Your task to perform on an android device: all mails in gmail Image 0: 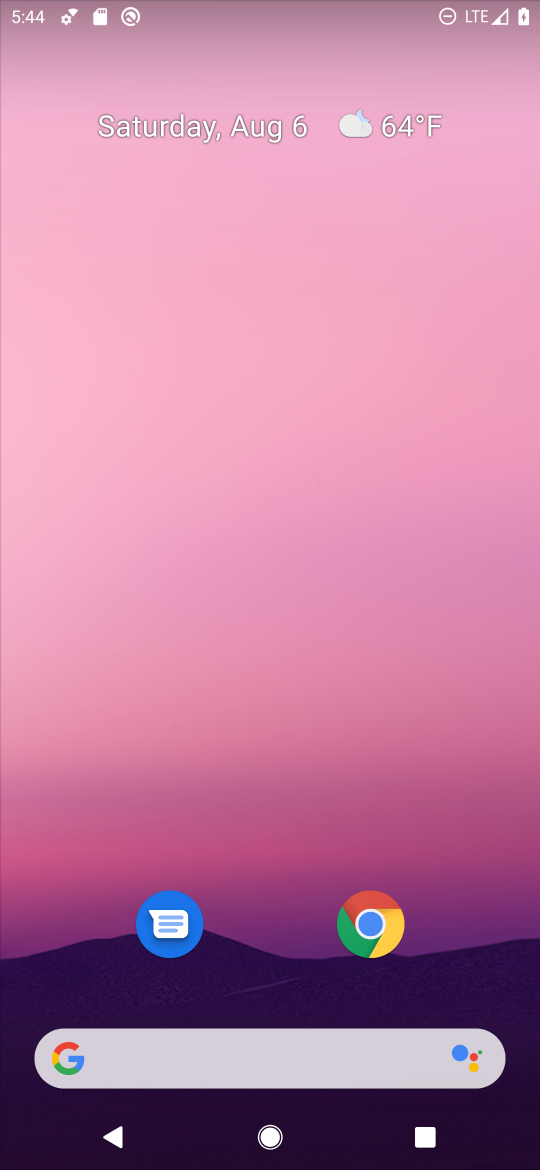
Step 0: drag from (242, 976) to (199, 121)
Your task to perform on an android device: all mails in gmail Image 1: 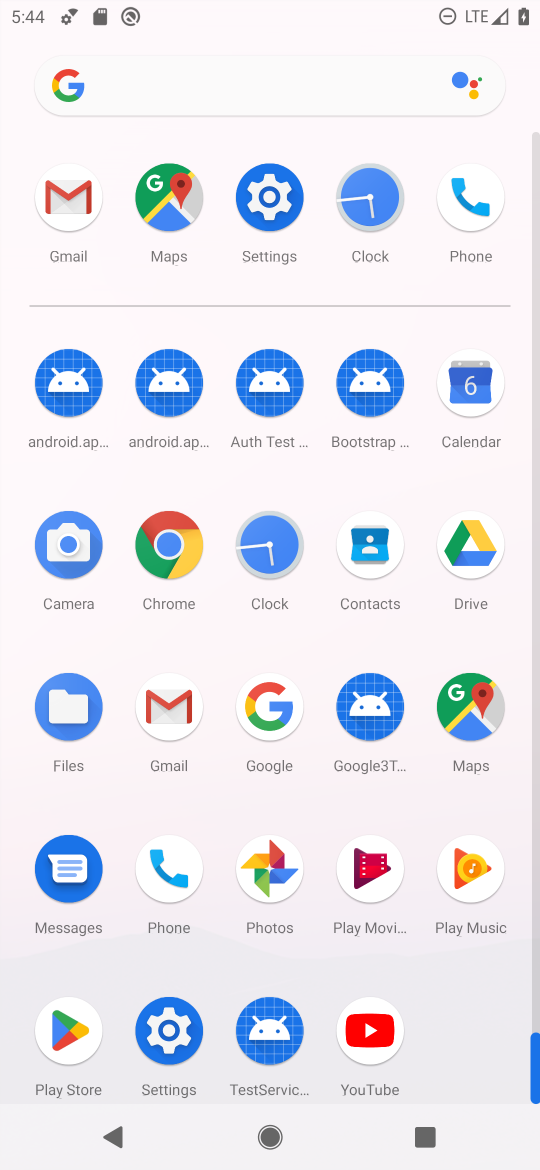
Step 1: click (70, 186)
Your task to perform on an android device: all mails in gmail Image 2: 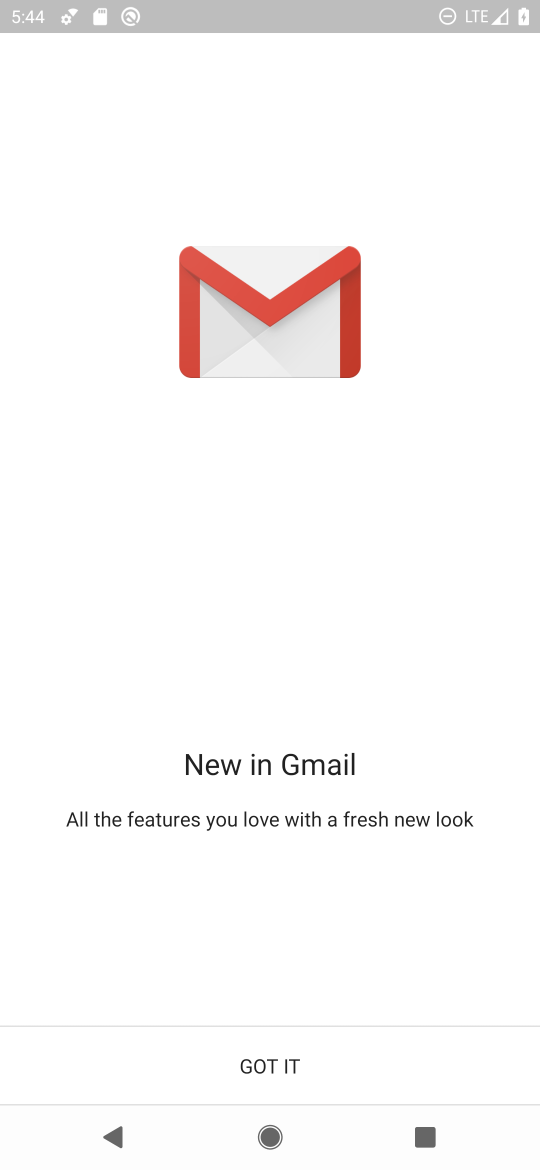
Step 2: click (287, 1068)
Your task to perform on an android device: all mails in gmail Image 3: 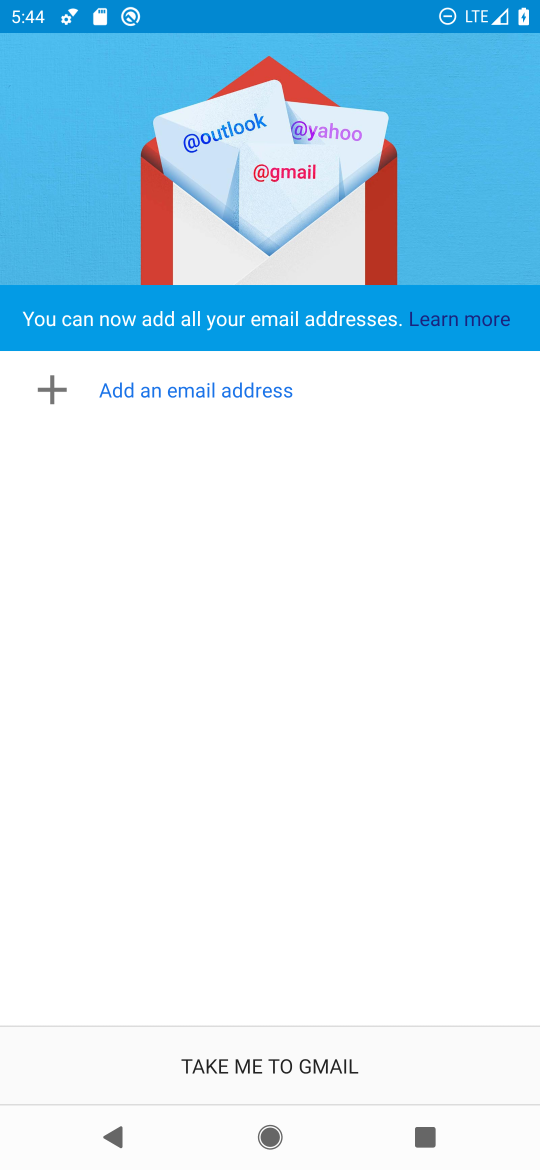
Step 3: task complete